Your task to perform on an android device: Show me productivity apps on the Play Store Image 0: 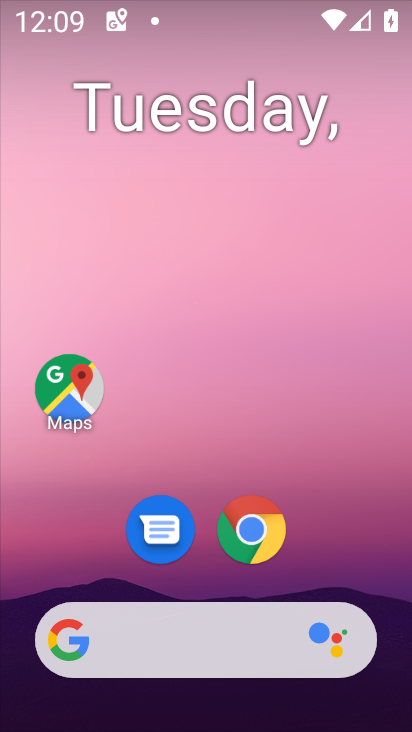
Step 0: drag from (215, 546) to (201, 53)
Your task to perform on an android device: Show me productivity apps on the Play Store Image 1: 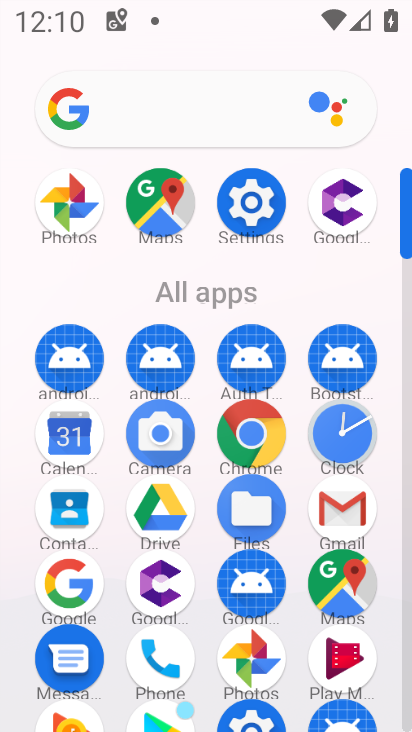
Step 1: click (165, 708)
Your task to perform on an android device: Show me productivity apps on the Play Store Image 2: 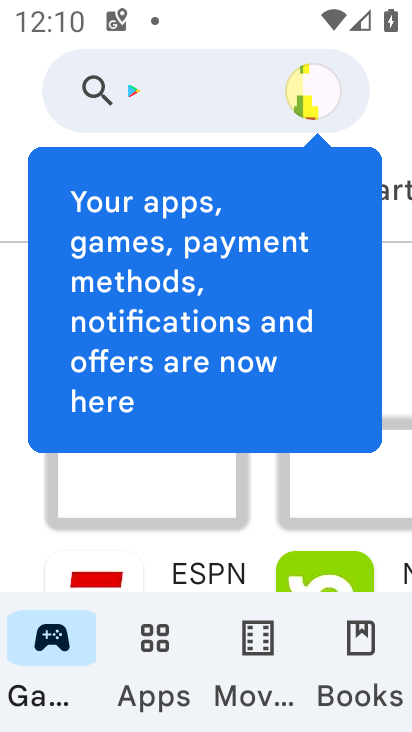
Step 2: click (159, 635)
Your task to perform on an android device: Show me productivity apps on the Play Store Image 3: 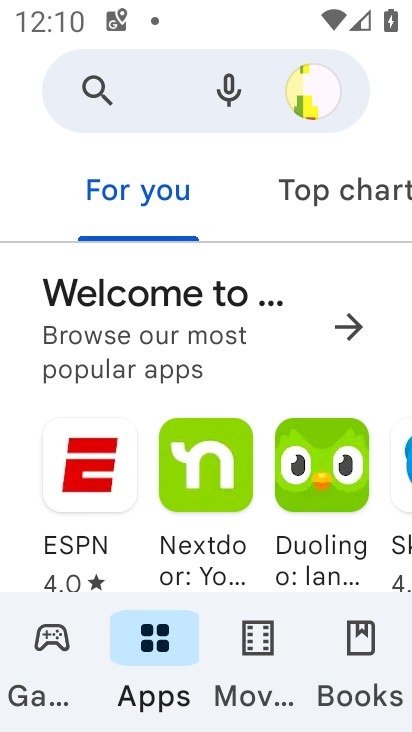
Step 3: drag from (180, 534) to (284, 23)
Your task to perform on an android device: Show me productivity apps on the Play Store Image 4: 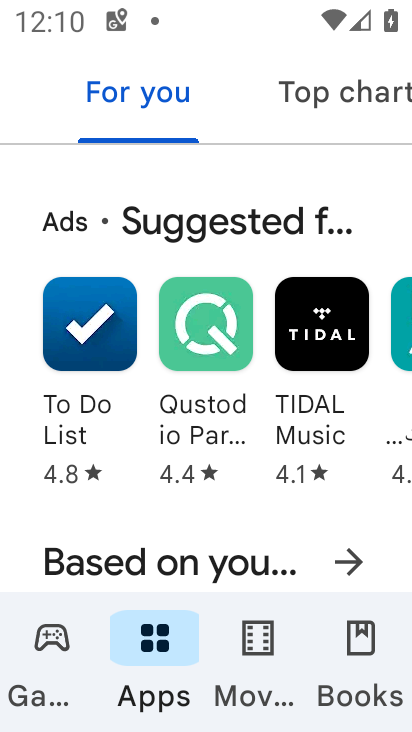
Step 4: drag from (229, 525) to (264, 66)
Your task to perform on an android device: Show me productivity apps on the Play Store Image 5: 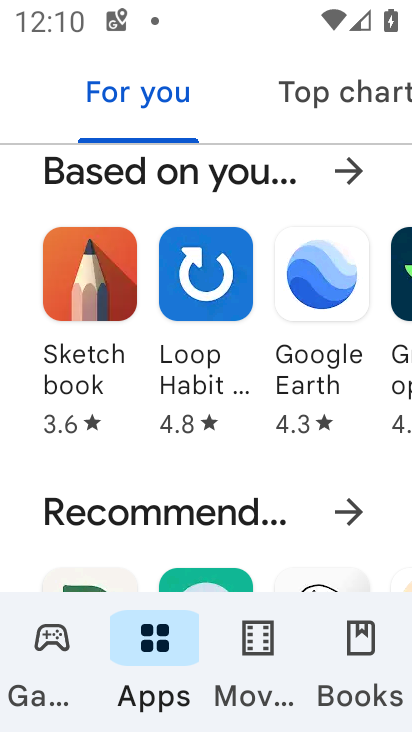
Step 5: drag from (191, 503) to (253, 30)
Your task to perform on an android device: Show me productivity apps on the Play Store Image 6: 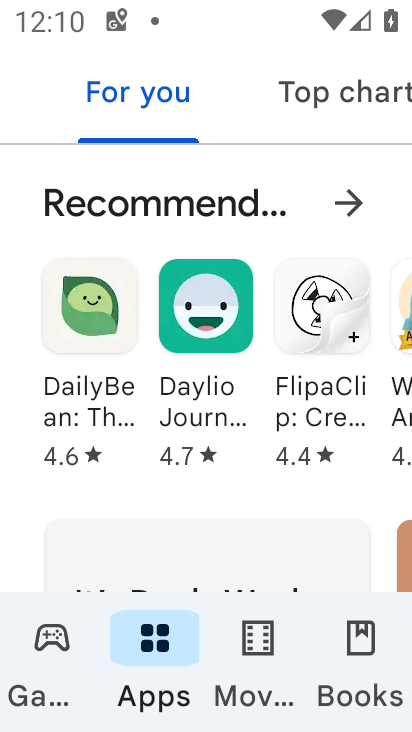
Step 6: drag from (195, 514) to (270, 75)
Your task to perform on an android device: Show me productivity apps on the Play Store Image 7: 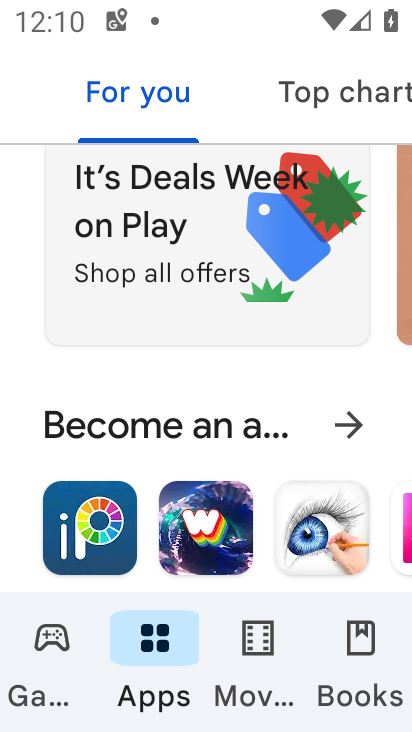
Step 7: drag from (168, 527) to (262, 77)
Your task to perform on an android device: Show me productivity apps on the Play Store Image 8: 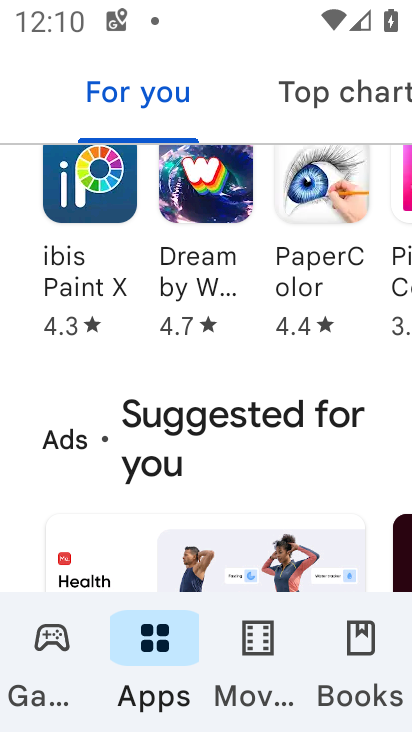
Step 8: drag from (186, 530) to (284, 82)
Your task to perform on an android device: Show me productivity apps on the Play Store Image 9: 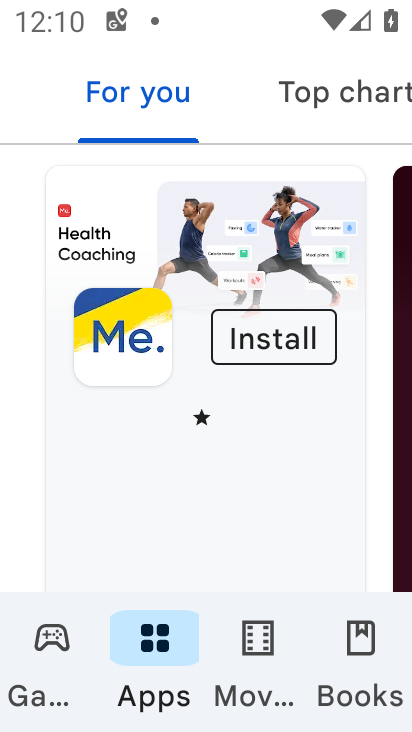
Step 9: drag from (196, 472) to (288, 26)
Your task to perform on an android device: Show me productivity apps on the Play Store Image 10: 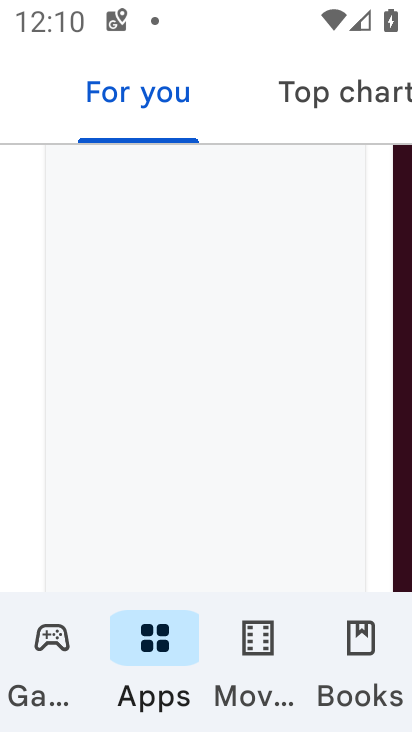
Step 10: drag from (204, 527) to (302, 104)
Your task to perform on an android device: Show me productivity apps on the Play Store Image 11: 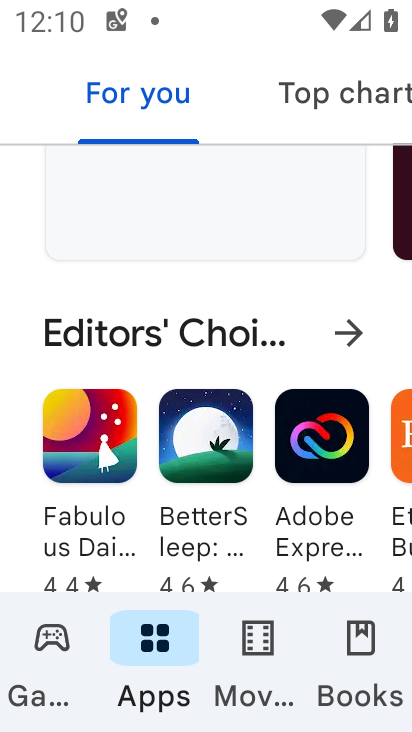
Step 11: drag from (232, 433) to (335, 18)
Your task to perform on an android device: Show me productivity apps on the Play Store Image 12: 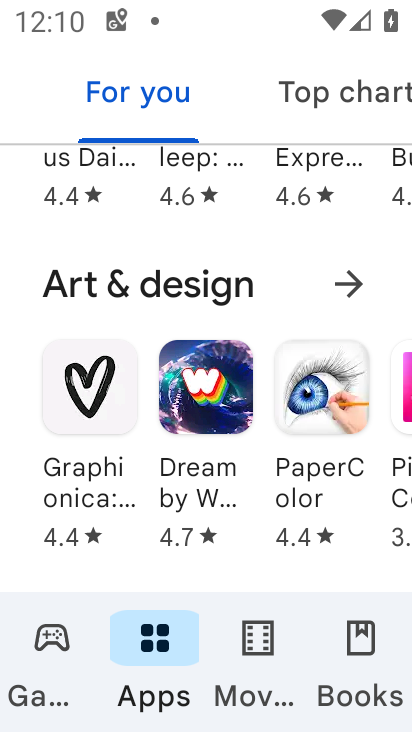
Step 12: drag from (185, 573) to (340, 3)
Your task to perform on an android device: Show me productivity apps on the Play Store Image 13: 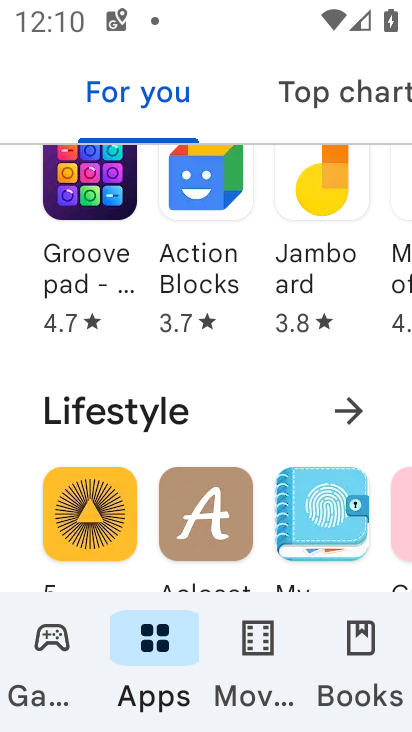
Step 13: drag from (257, 499) to (341, 4)
Your task to perform on an android device: Show me productivity apps on the Play Store Image 14: 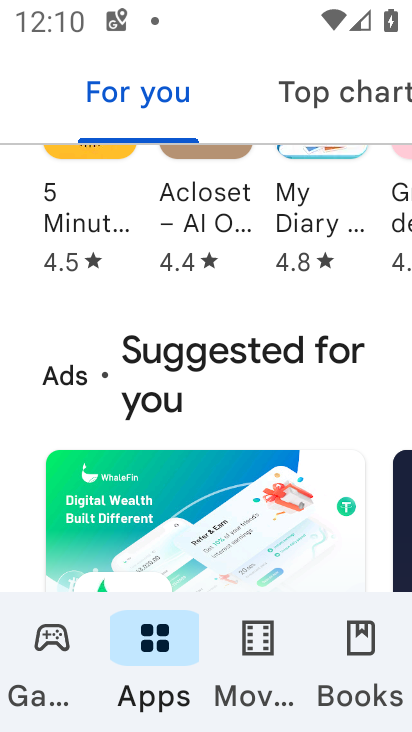
Step 14: drag from (200, 524) to (264, 46)
Your task to perform on an android device: Show me productivity apps on the Play Store Image 15: 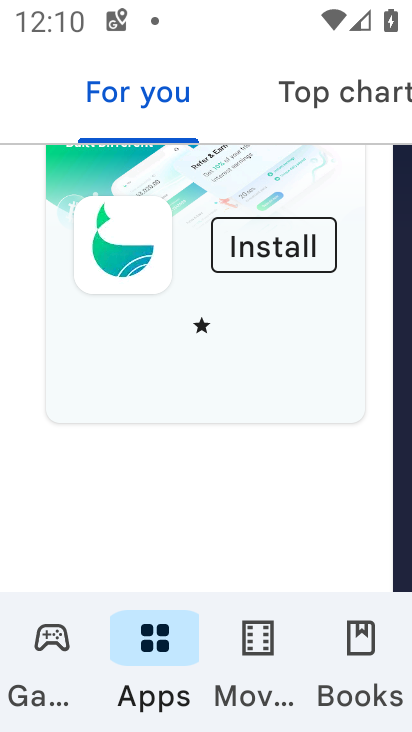
Step 15: drag from (195, 526) to (263, 9)
Your task to perform on an android device: Show me productivity apps on the Play Store Image 16: 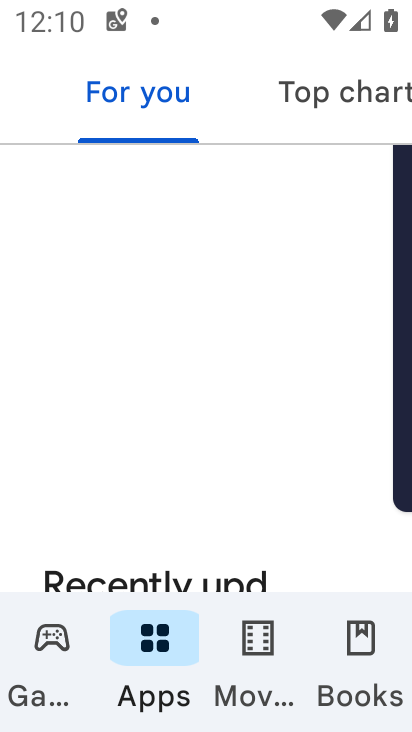
Step 16: drag from (199, 573) to (306, 51)
Your task to perform on an android device: Show me productivity apps on the Play Store Image 17: 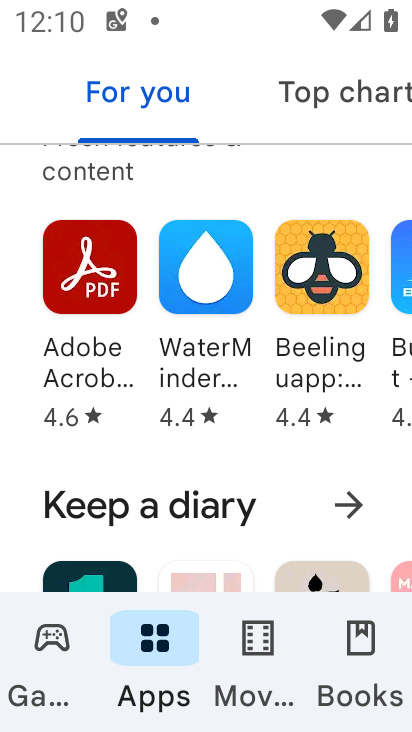
Step 17: drag from (212, 572) to (283, 17)
Your task to perform on an android device: Show me productivity apps on the Play Store Image 18: 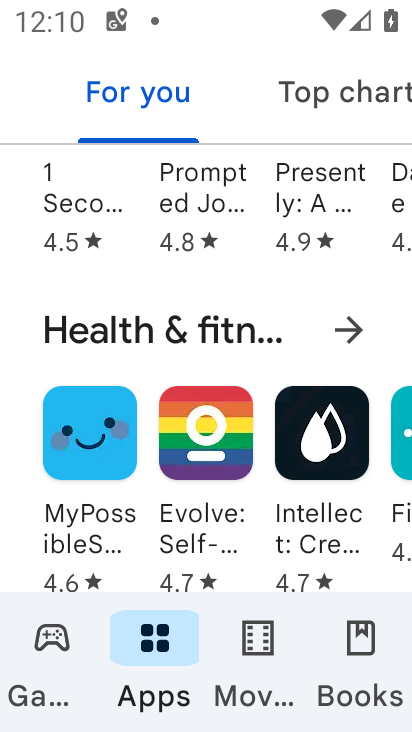
Step 18: drag from (151, 533) to (264, 0)
Your task to perform on an android device: Show me productivity apps on the Play Store Image 19: 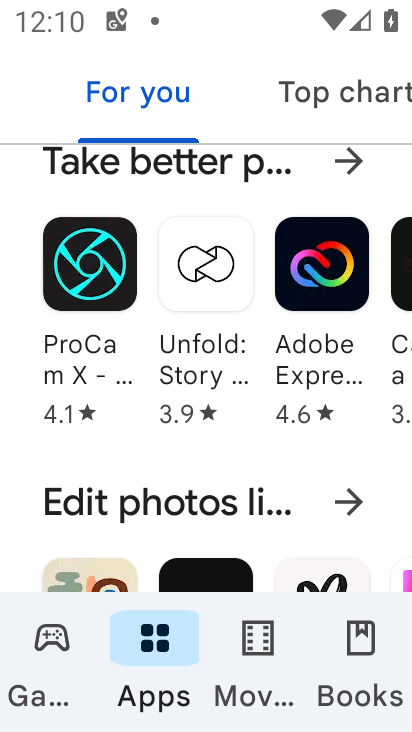
Step 19: drag from (185, 526) to (257, 37)
Your task to perform on an android device: Show me productivity apps on the Play Store Image 20: 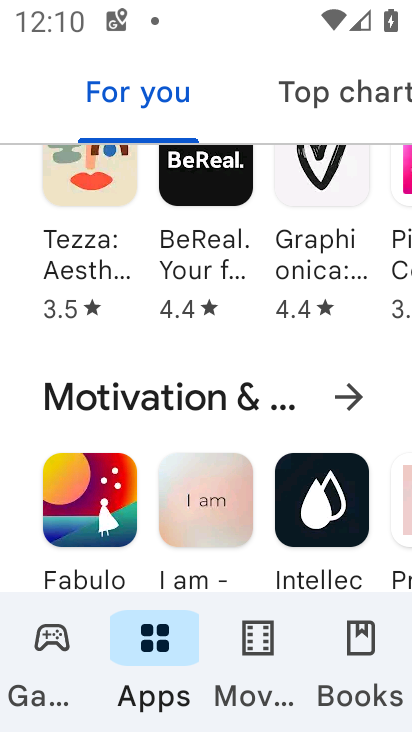
Step 20: drag from (226, 475) to (335, 78)
Your task to perform on an android device: Show me productivity apps on the Play Store Image 21: 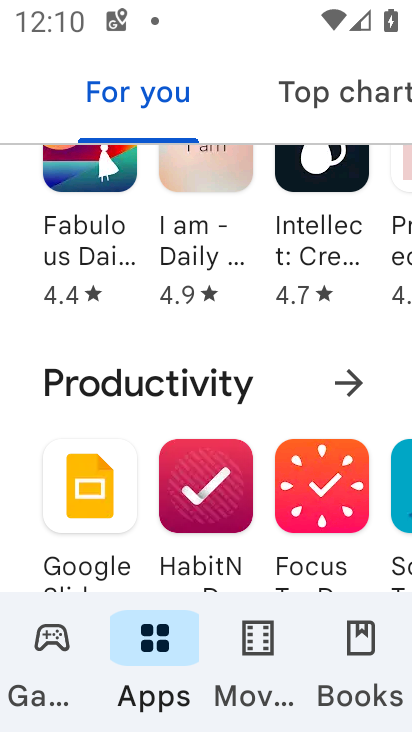
Step 21: click (351, 373)
Your task to perform on an android device: Show me productivity apps on the Play Store Image 22: 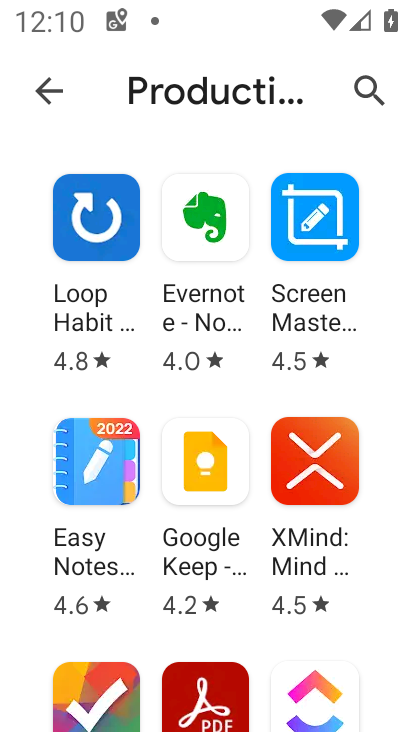
Step 22: task complete